Your task to perform on an android device: Open internet settings Image 0: 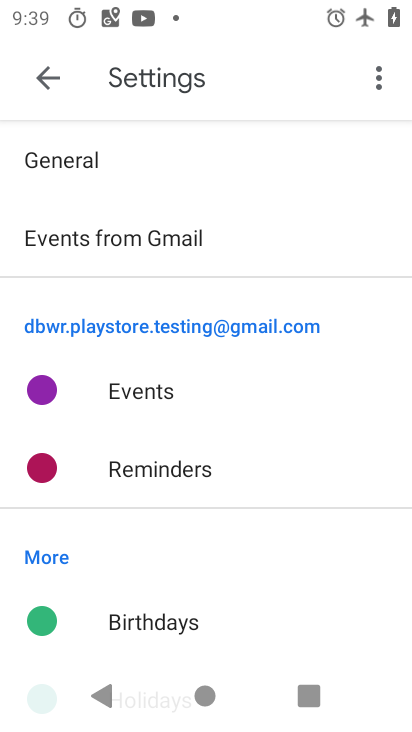
Step 0: press home button
Your task to perform on an android device: Open internet settings Image 1: 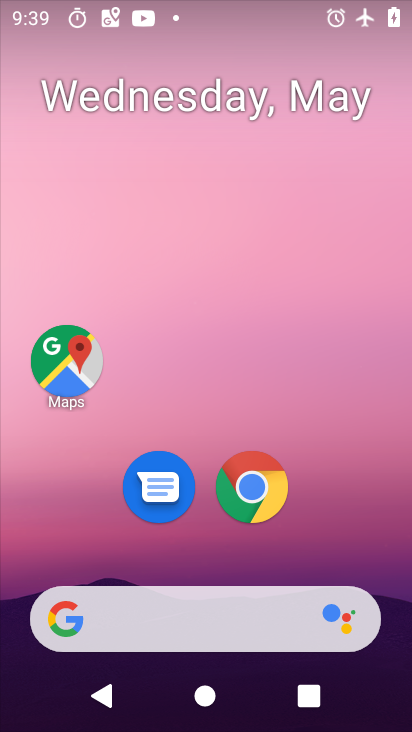
Step 1: drag from (231, 466) to (238, 173)
Your task to perform on an android device: Open internet settings Image 2: 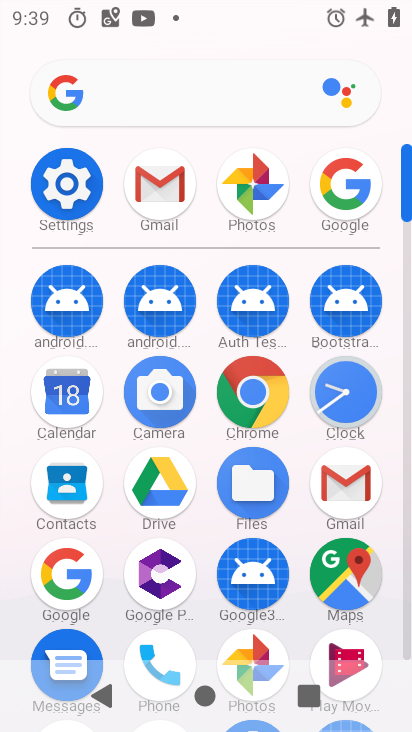
Step 2: click (60, 190)
Your task to perform on an android device: Open internet settings Image 3: 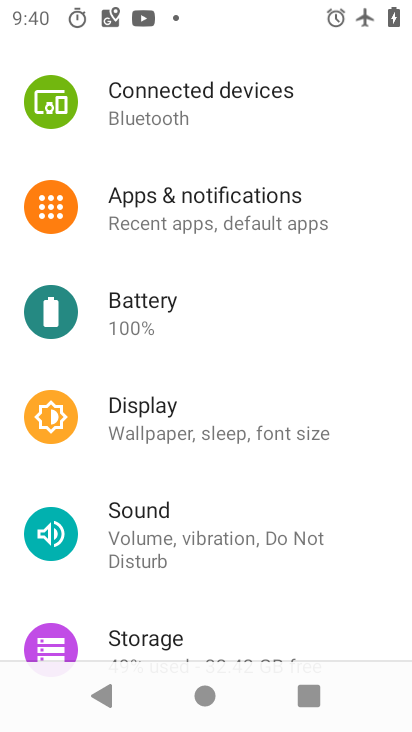
Step 3: drag from (240, 158) to (221, 526)
Your task to perform on an android device: Open internet settings Image 4: 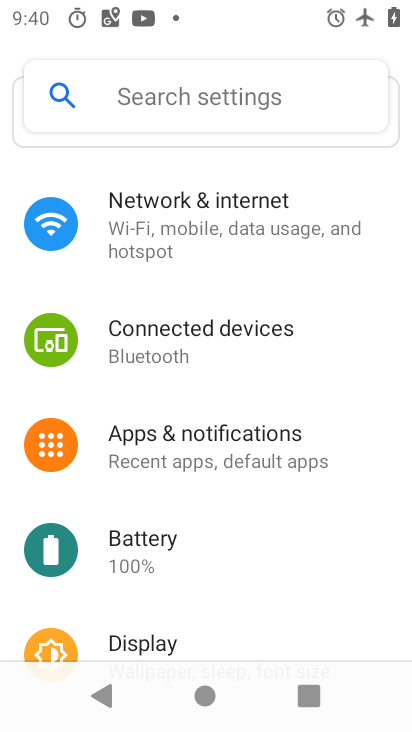
Step 4: click (219, 210)
Your task to perform on an android device: Open internet settings Image 5: 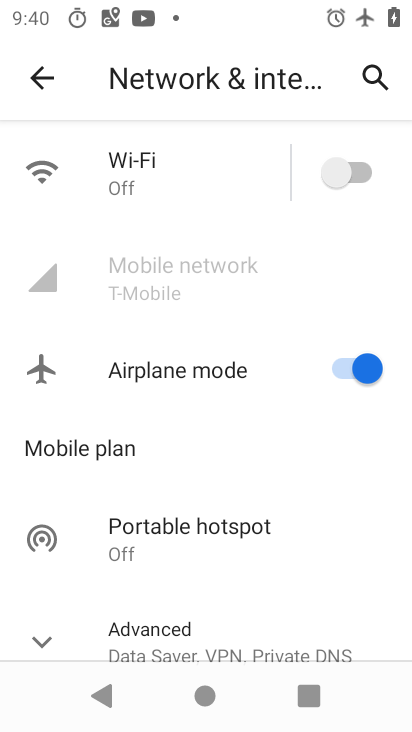
Step 5: task complete